Your task to perform on an android device: Open the web browser Image 0: 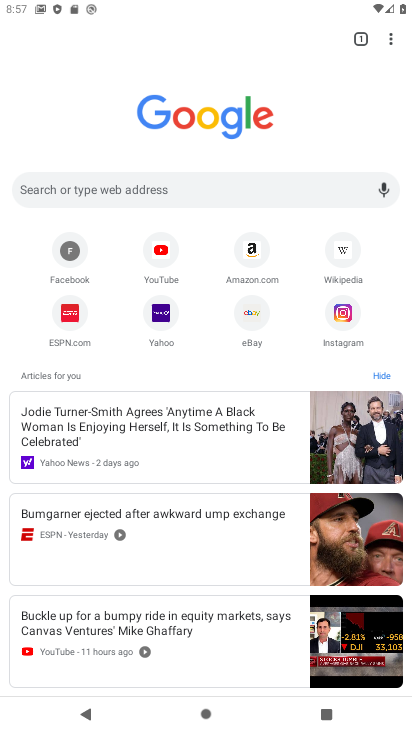
Step 0: task complete